Your task to perform on an android device: turn off translation in the chrome app Image 0: 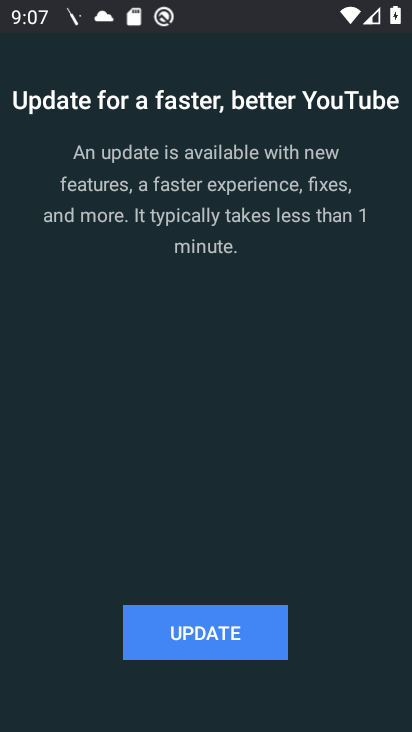
Step 0: press home button
Your task to perform on an android device: turn off translation in the chrome app Image 1: 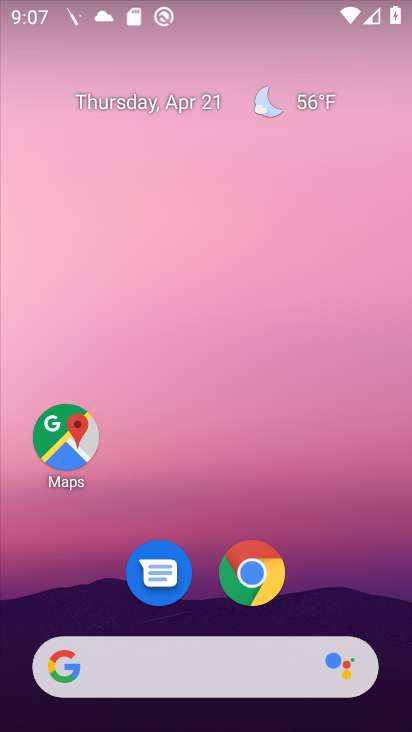
Step 1: drag from (352, 559) to (299, 170)
Your task to perform on an android device: turn off translation in the chrome app Image 2: 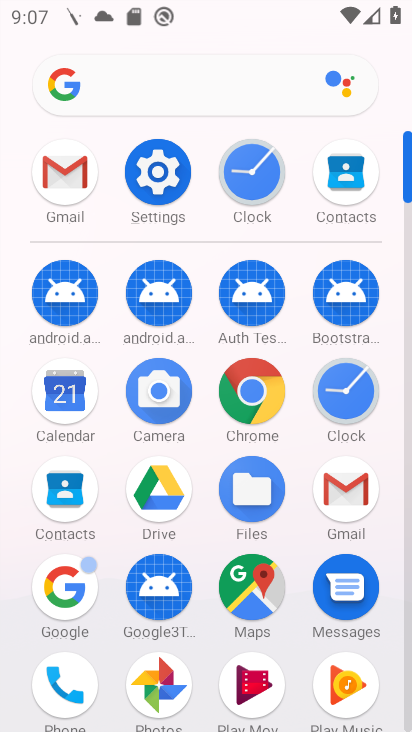
Step 2: click (269, 409)
Your task to perform on an android device: turn off translation in the chrome app Image 3: 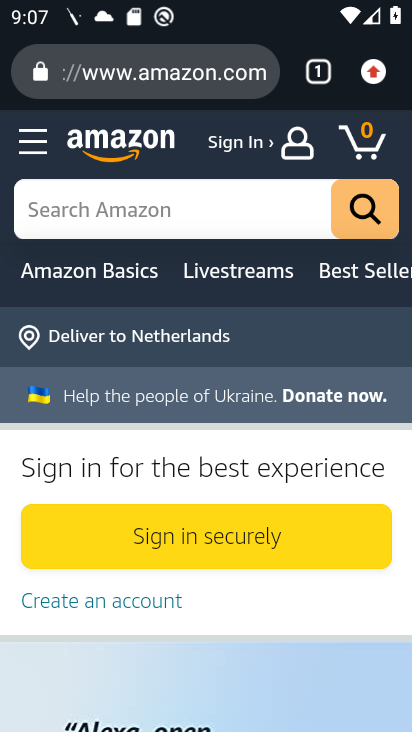
Step 3: click (372, 77)
Your task to perform on an android device: turn off translation in the chrome app Image 4: 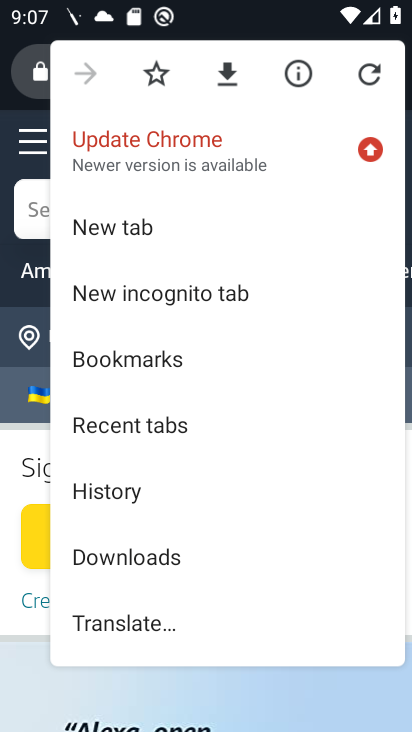
Step 4: drag from (178, 602) to (193, 320)
Your task to perform on an android device: turn off translation in the chrome app Image 5: 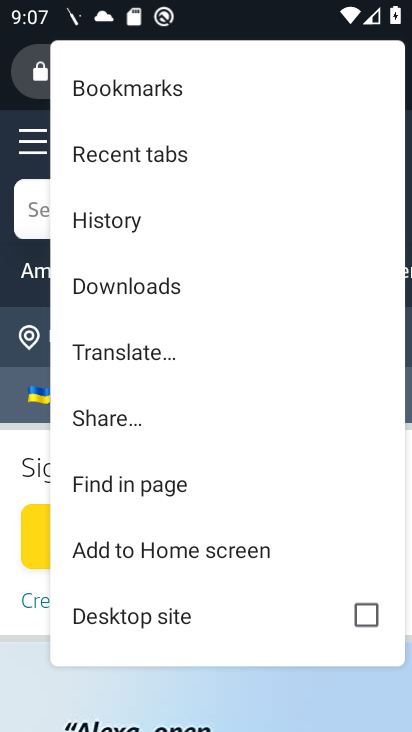
Step 5: drag from (144, 575) to (196, 316)
Your task to perform on an android device: turn off translation in the chrome app Image 6: 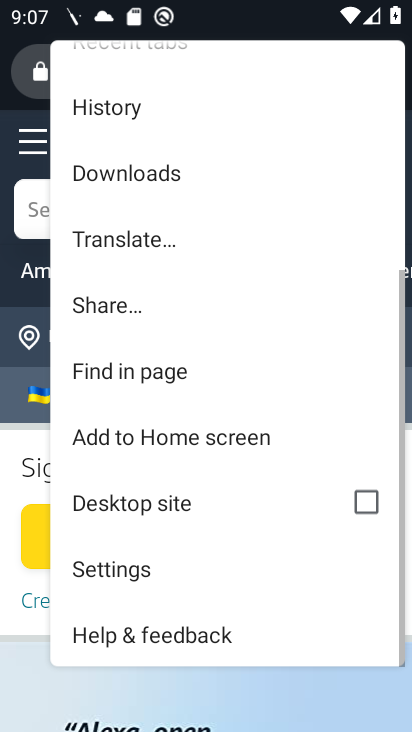
Step 6: click (99, 560)
Your task to perform on an android device: turn off translation in the chrome app Image 7: 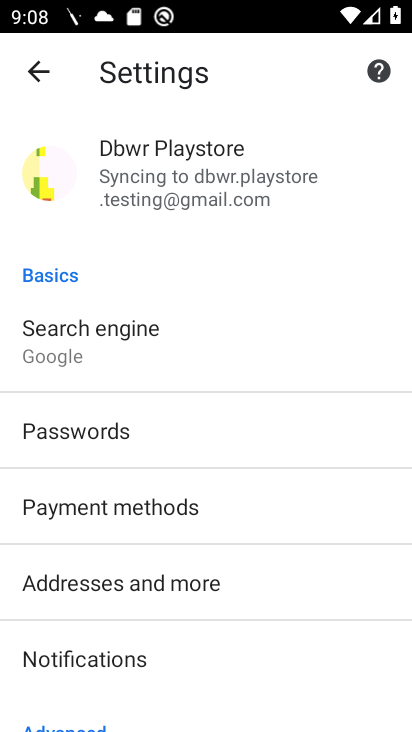
Step 7: drag from (125, 474) to (157, 303)
Your task to perform on an android device: turn off translation in the chrome app Image 8: 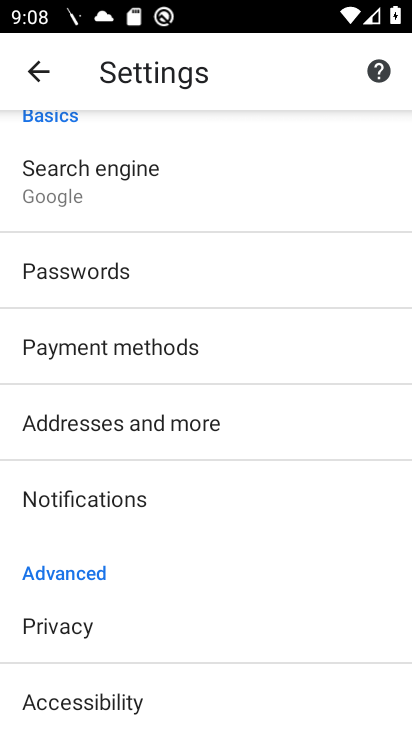
Step 8: drag from (101, 528) to (146, 317)
Your task to perform on an android device: turn off translation in the chrome app Image 9: 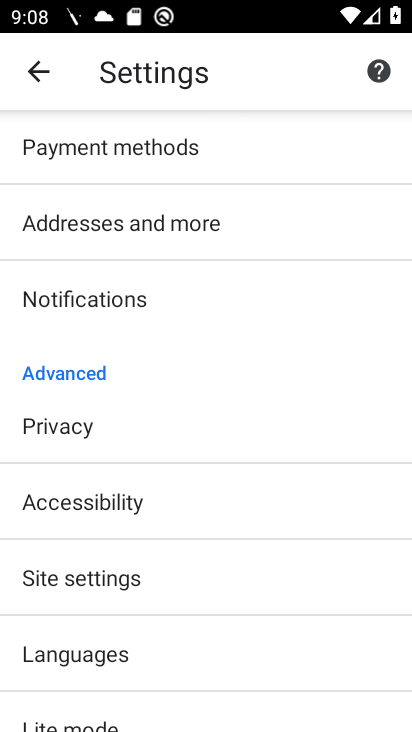
Step 9: click (99, 651)
Your task to perform on an android device: turn off translation in the chrome app Image 10: 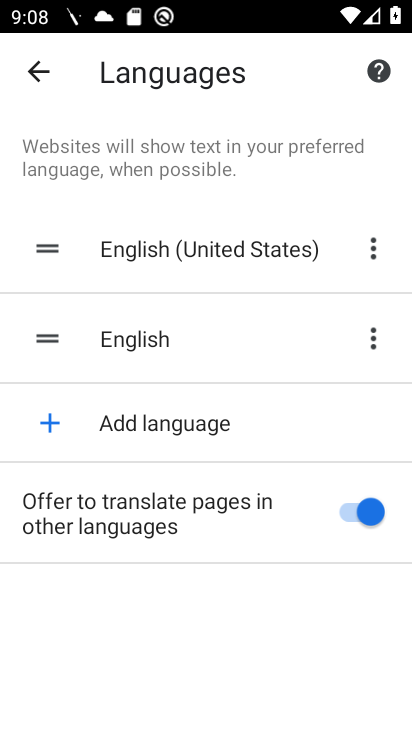
Step 10: click (355, 513)
Your task to perform on an android device: turn off translation in the chrome app Image 11: 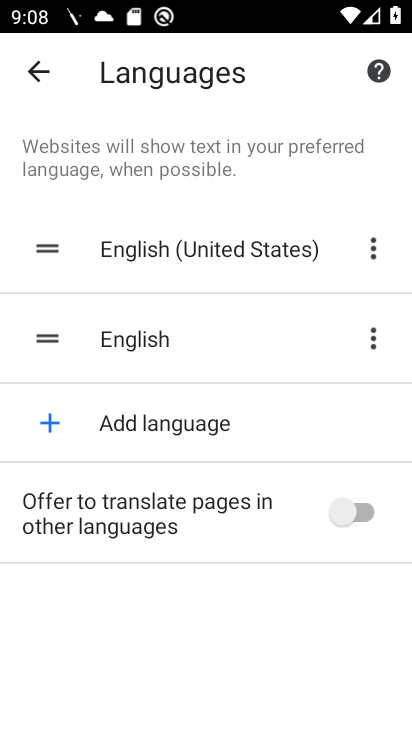
Step 11: task complete